Your task to perform on an android device: Go to Google Image 0: 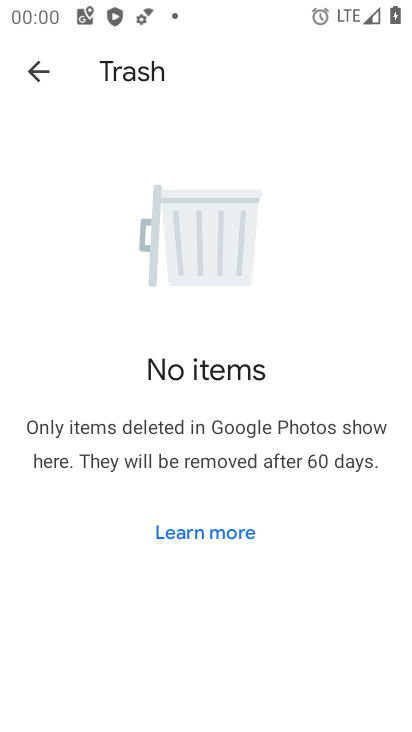
Step 0: press home button
Your task to perform on an android device: Go to Google Image 1: 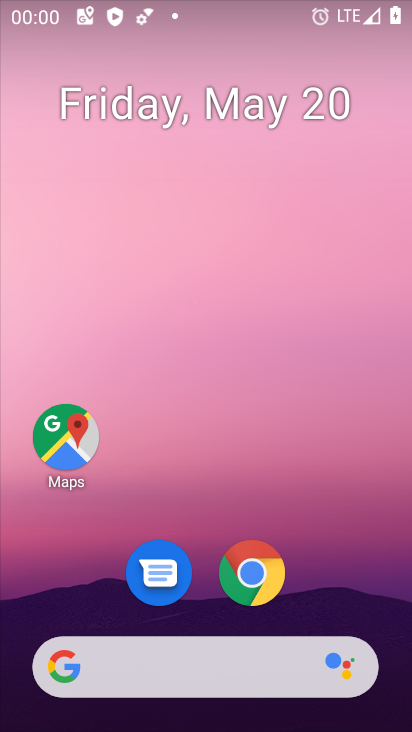
Step 1: drag from (199, 603) to (168, 166)
Your task to perform on an android device: Go to Google Image 2: 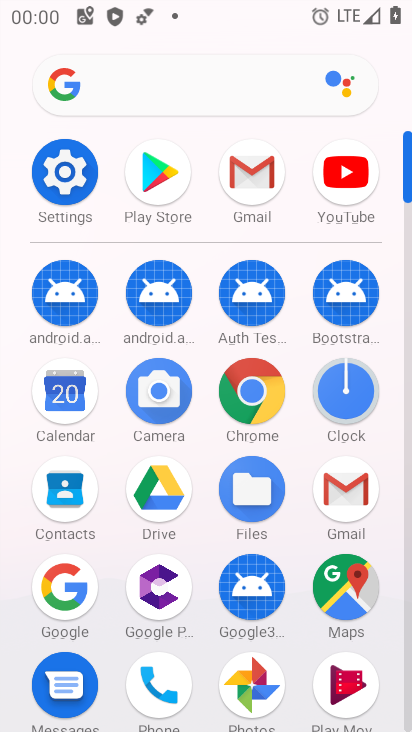
Step 2: click (48, 602)
Your task to perform on an android device: Go to Google Image 3: 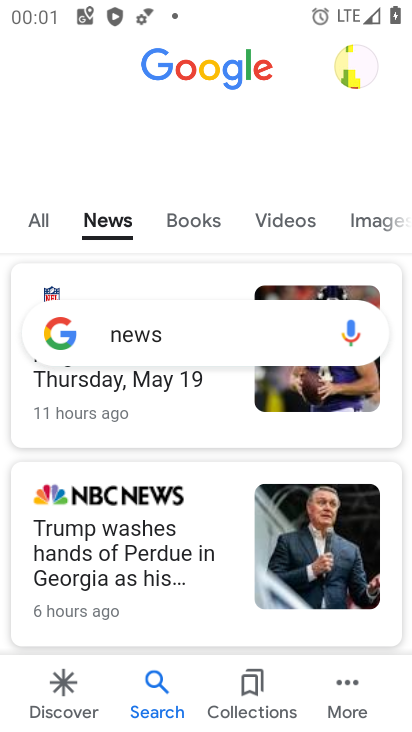
Step 3: task complete